Your task to perform on an android device: Toggle the flashlight Image 0: 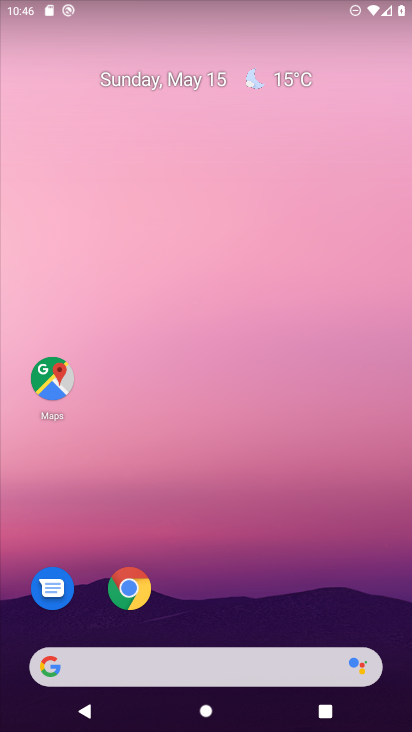
Step 0: drag from (195, 593) to (171, 7)
Your task to perform on an android device: Toggle the flashlight Image 1: 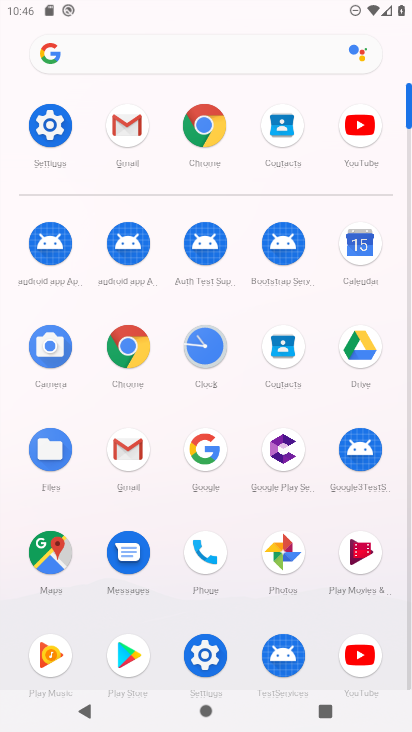
Step 1: click (52, 203)
Your task to perform on an android device: Toggle the flashlight Image 2: 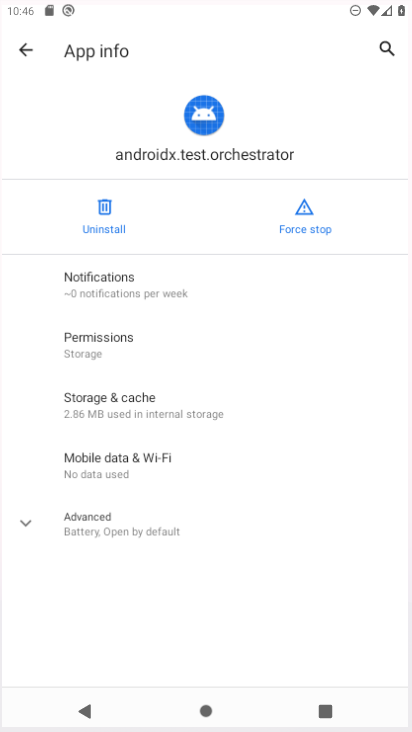
Step 2: click (54, 125)
Your task to perform on an android device: Toggle the flashlight Image 3: 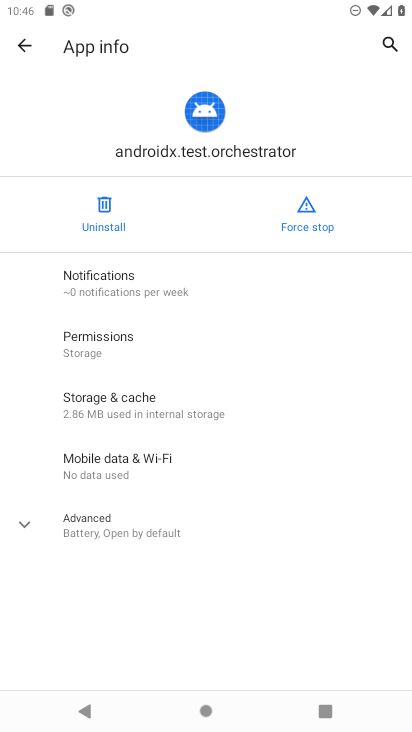
Step 3: click (24, 46)
Your task to perform on an android device: Toggle the flashlight Image 4: 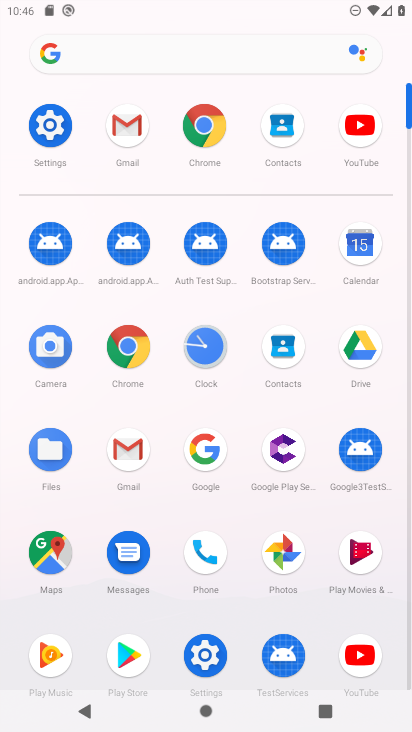
Step 4: click (53, 138)
Your task to perform on an android device: Toggle the flashlight Image 5: 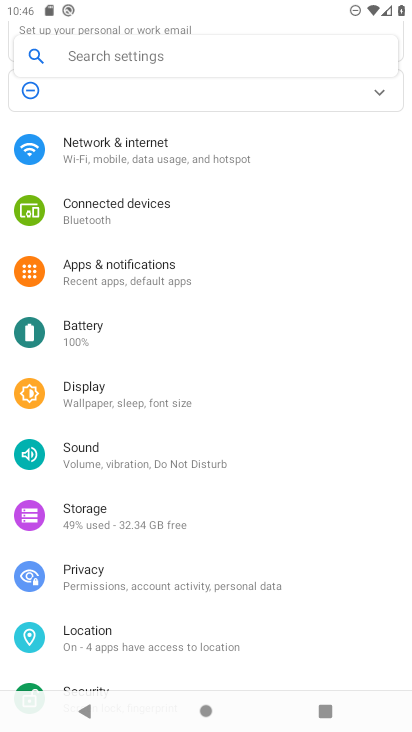
Step 5: click (183, 61)
Your task to perform on an android device: Toggle the flashlight Image 6: 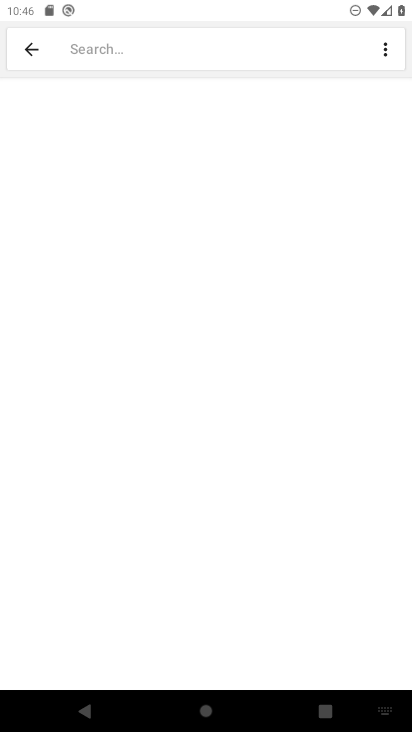
Step 6: type "flashlight"
Your task to perform on an android device: Toggle the flashlight Image 7: 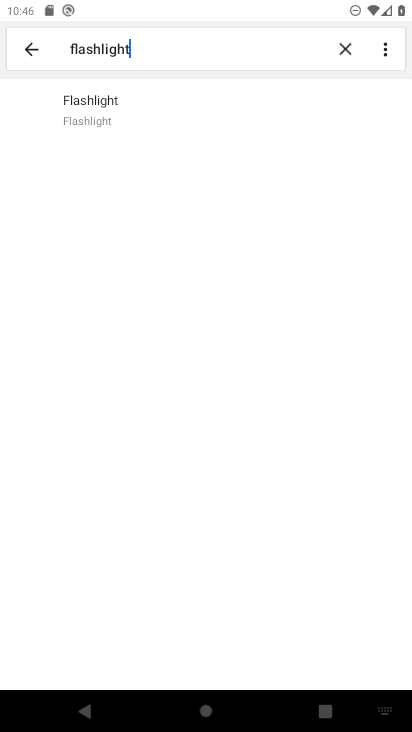
Step 7: click (103, 107)
Your task to perform on an android device: Toggle the flashlight Image 8: 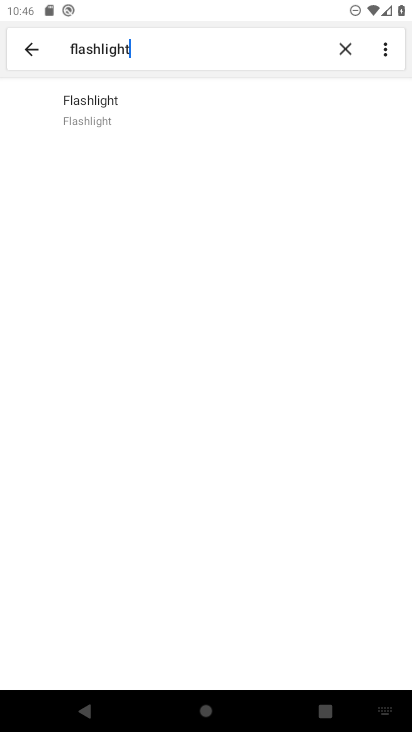
Step 8: click (103, 107)
Your task to perform on an android device: Toggle the flashlight Image 9: 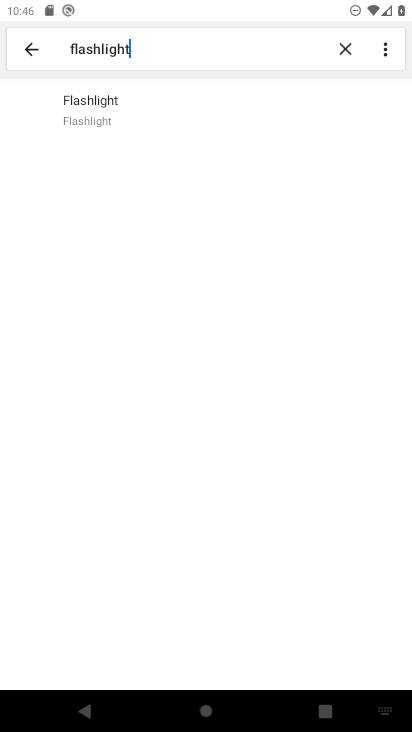
Step 9: task complete